Your task to perform on an android device: Open settings on Google Maps Image 0: 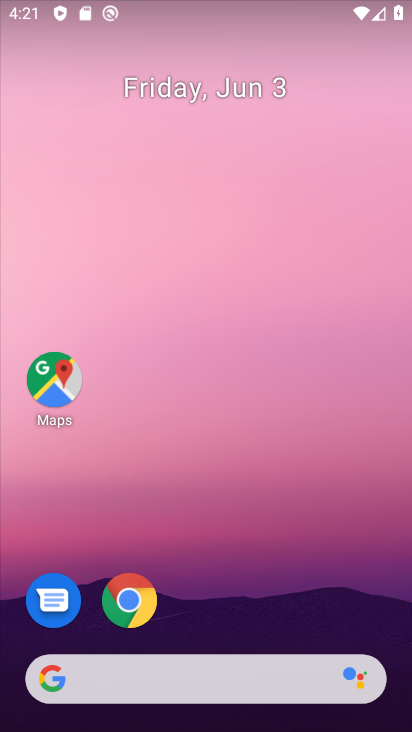
Step 0: click (66, 373)
Your task to perform on an android device: Open settings on Google Maps Image 1: 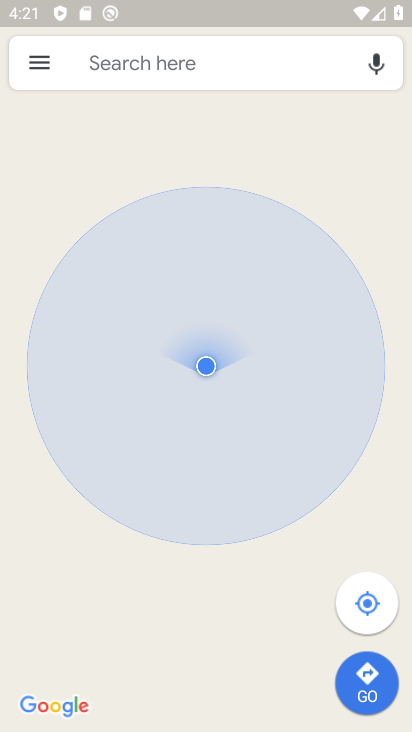
Step 1: click (44, 61)
Your task to perform on an android device: Open settings on Google Maps Image 2: 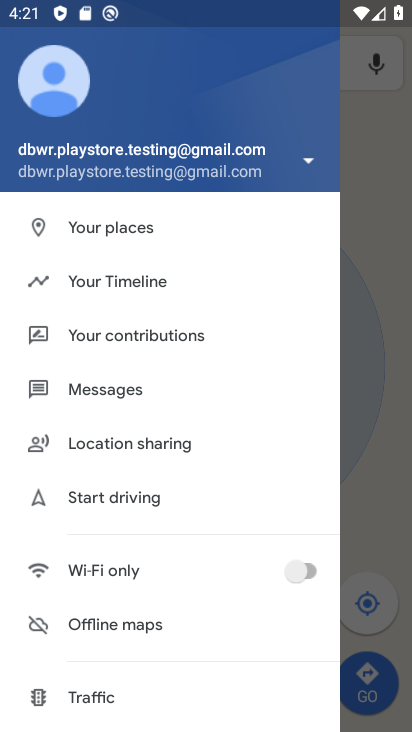
Step 2: drag from (152, 633) to (199, 202)
Your task to perform on an android device: Open settings on Google Maps Image 3: 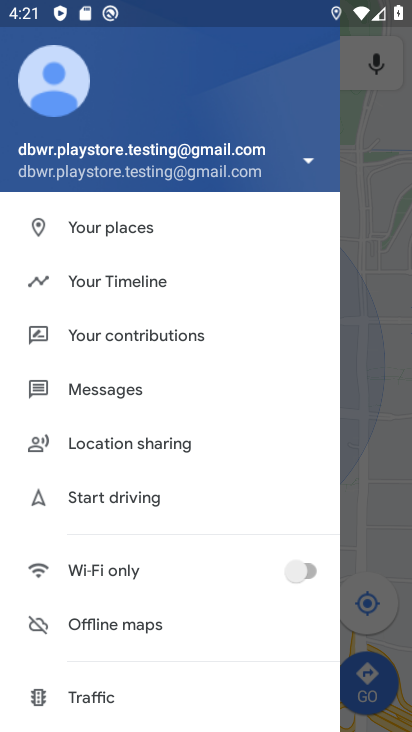
Step 3: drag from (118, 628) to (210, 200)
Your task to perform on an android device: Open settings on Google Maps Image 4: 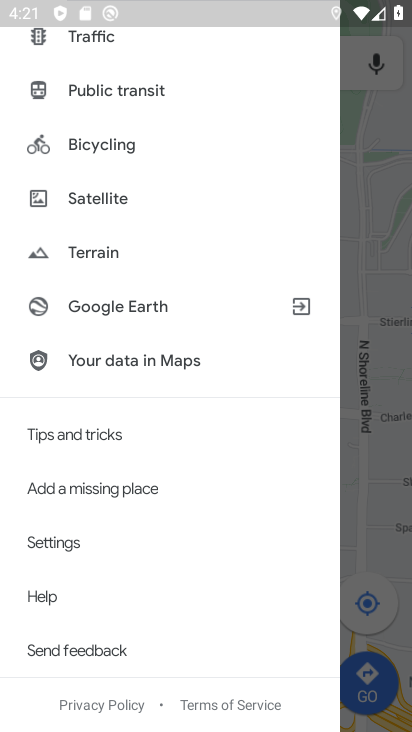
Step 4: click (73, 546)
Your task to perform on an android device: Open settings on Google Maps Image 5: 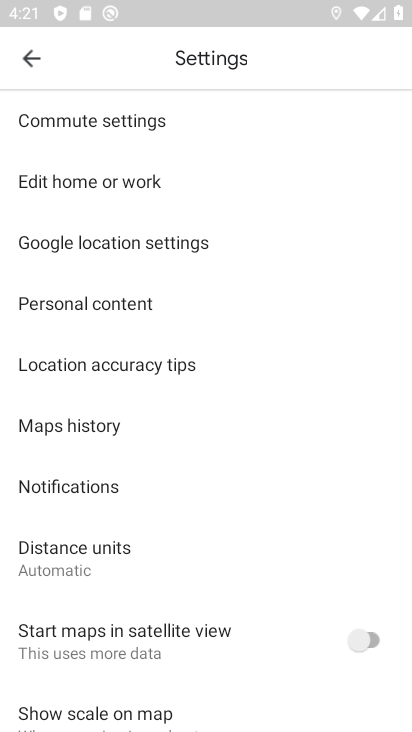
Step 5: task complete